Your task to perform on an android device: manage bookmarks in the chrome app Image 0: 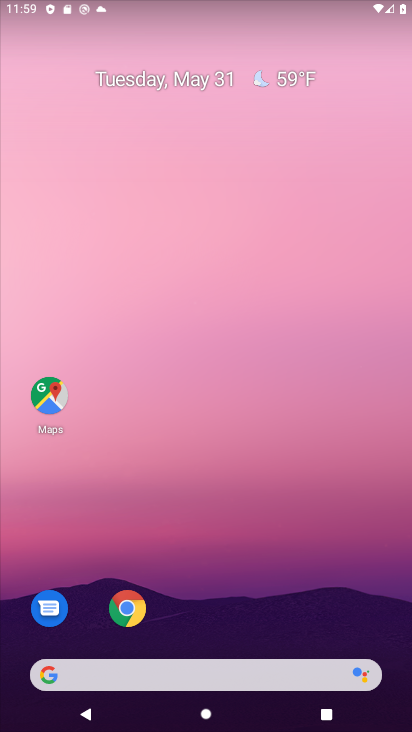
Step 0: click (127, 603)
Your task to perform on an android device: manage bookmarks in the chrome app Image 1: 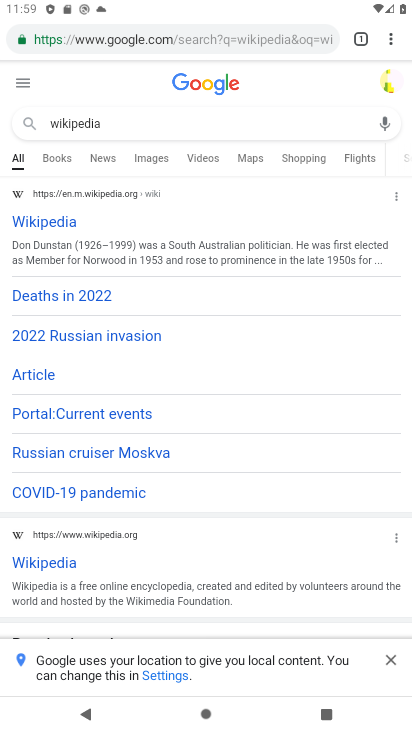
Step 1: click (388, 40)
Your task to perform on an android device: manage bookmarks in the chrome app Image 2: 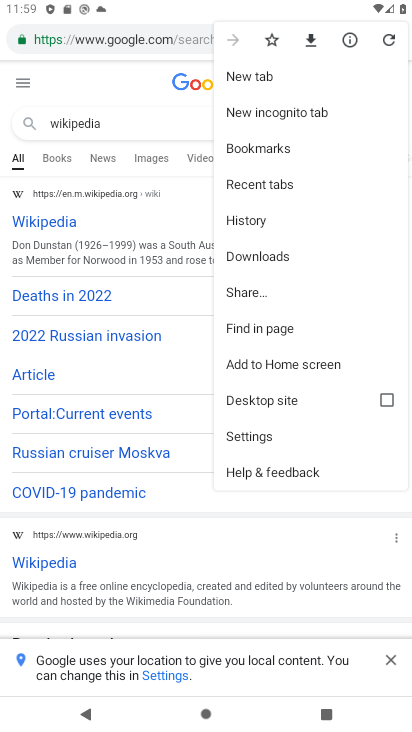
Step 2: click (258, 145)
Your task to perform on an android device: manage bookmarks in the chrome app Image 3: 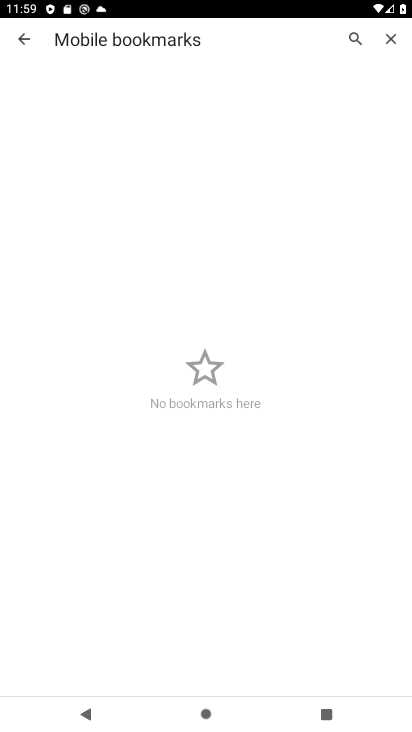
Step 3: task complete